Your task to perform on an android device: Go to Yahoo.com Image 0: 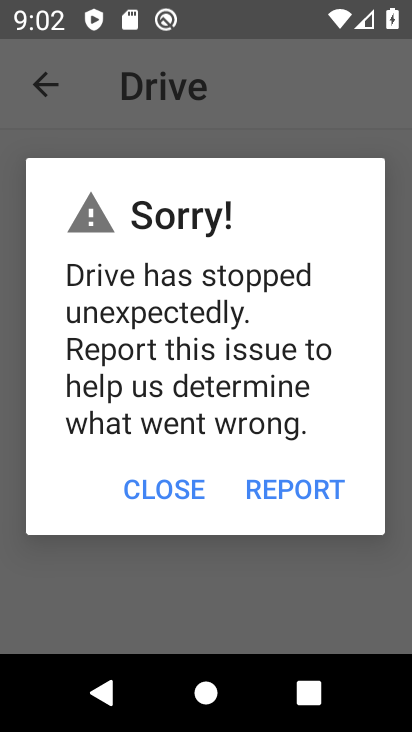
Step 0: press home button
Your task to perform on an android device: Go to Yahoo.com Image 1: 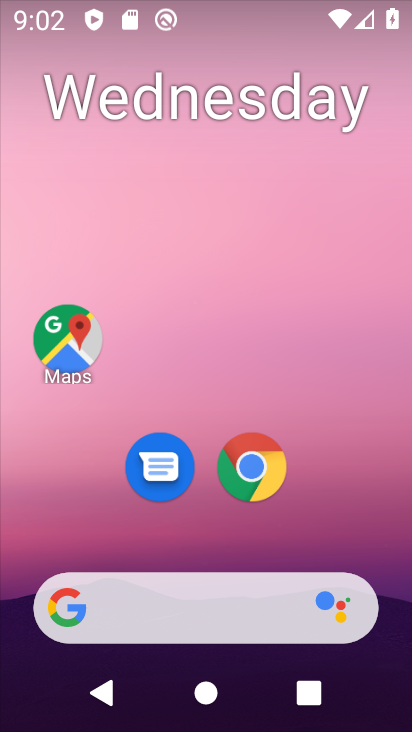
Step 1: click (273, 470)
Your task to perform on an android device: Go to Yahoo.com Image 2: 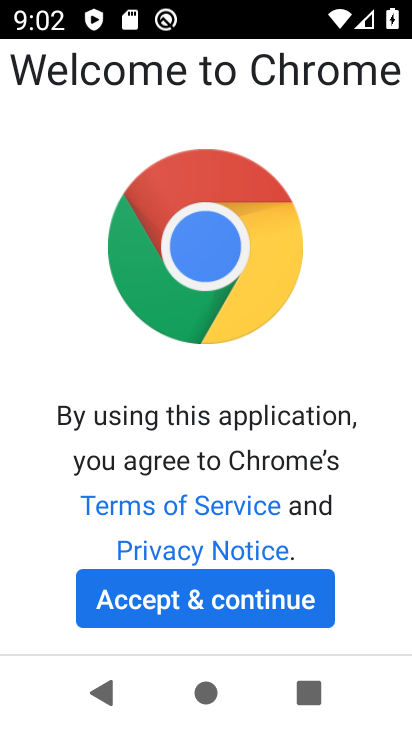
Step 2: click (218, 591)
Your task to perform on an android device: Go to Yahoo.com Image 3: 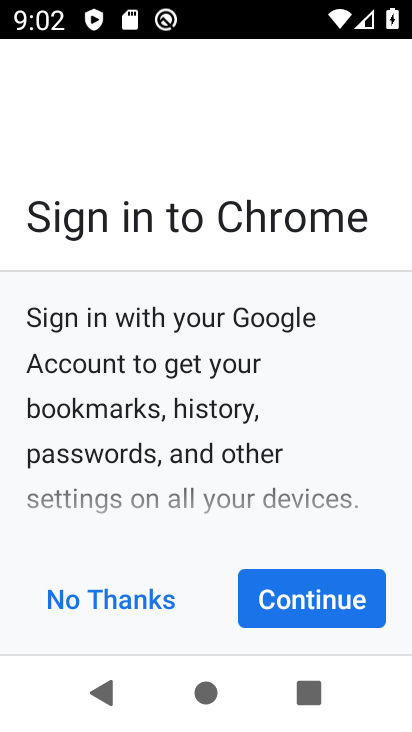
Step 3: click (362, 588)
Your task to perform on an android device: Go to Yahoo.com Image 4: 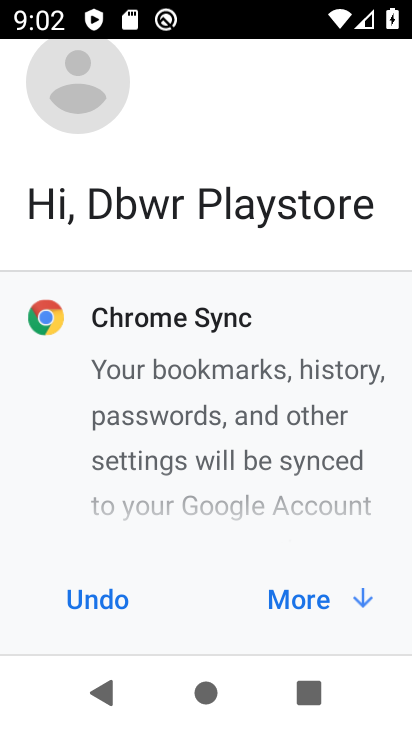
Step 4: click (317, 597)
Your task to perform on an android device: Go to Yahoo.com Image 5: 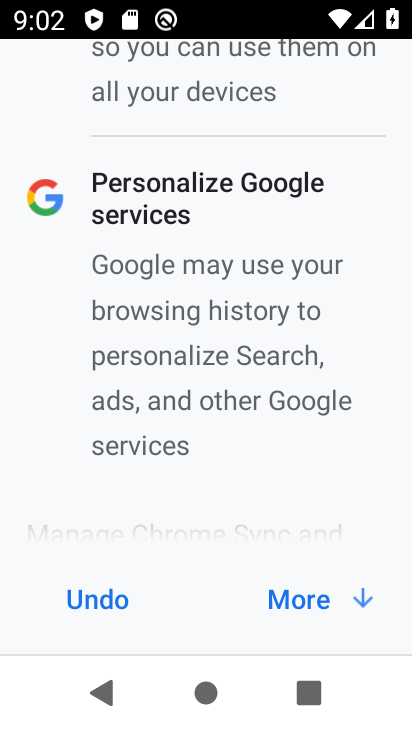
Step 5: click (317, 597)
Your task to perform on an android device: Go to Yahoo.com Image 6: 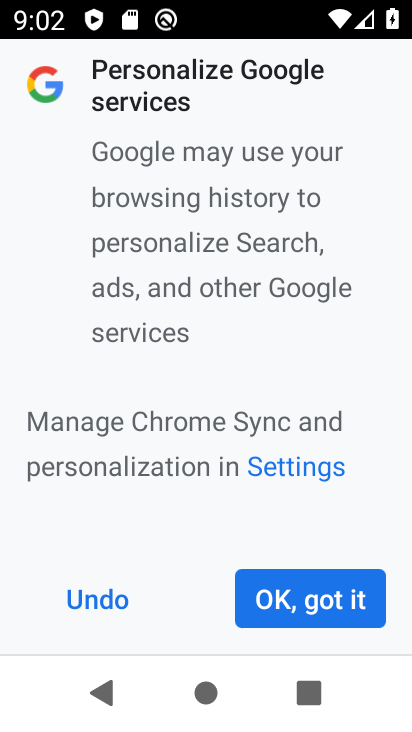
Step 6: click (317, 597)
Your task to perform on an android device: Go to Yahoo.com Image 7: 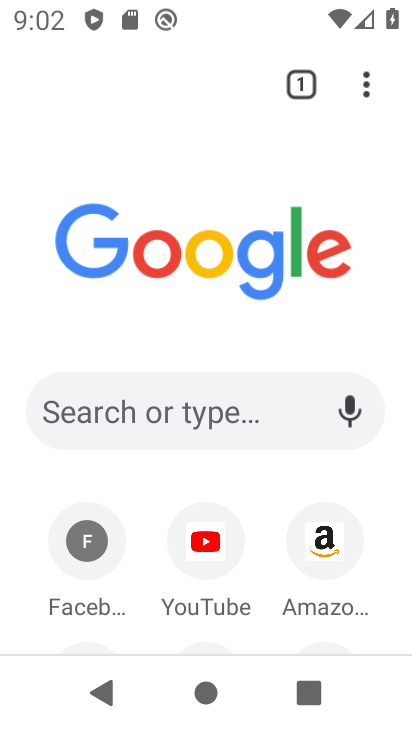
Step 7: drag from (268, 573) to (248, 374)
Your task to perform on an android device: Go to Yahoo.com Image 8: 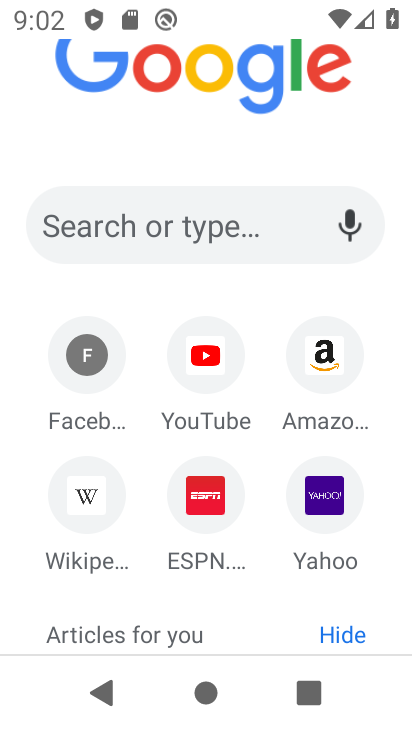
Step 8: click (323, 500)
Your task to perform on an android device: Go to Yahoo.com Image 9: 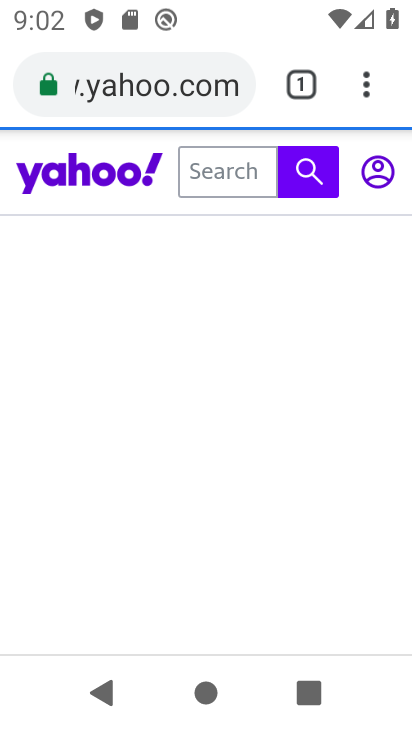
Step 9: task complete